Your task to perform on an android device: Do I have any events this weekend? Image 0: 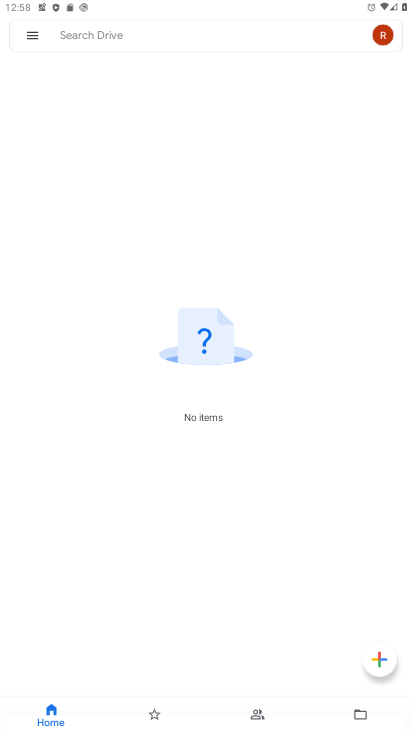
Step 0: press home button
Your task to perform on an android device: Do I have any events this weekend? Image 1: 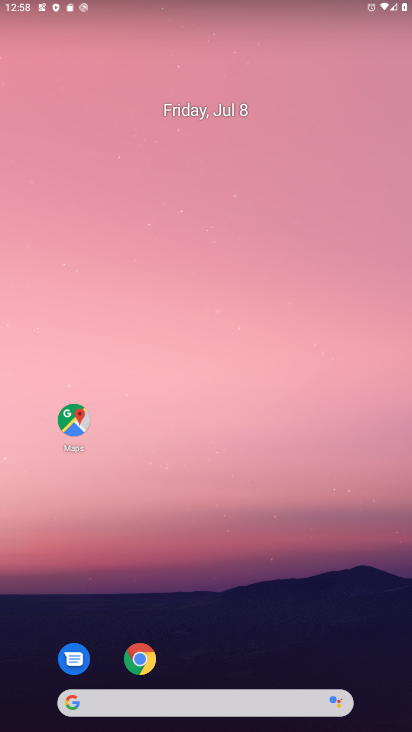
Step 1: drag from (217, 574) to (94, 120)
Your task to perform on an android device: Do I have any events this weekend? Image 2: 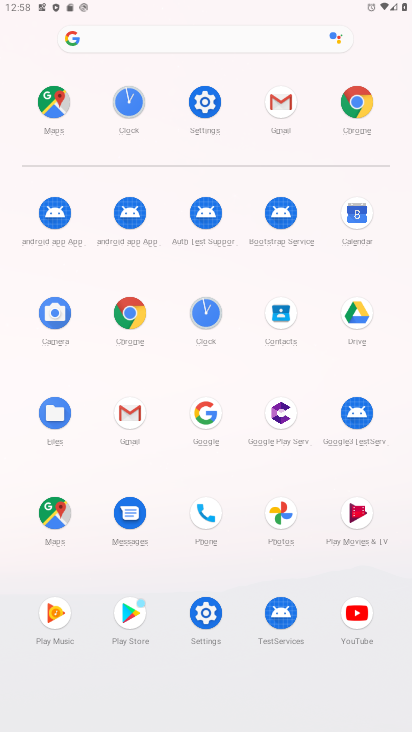
Step 2: click (355, 217)
Your task to perform on an android device: Do I have any events this weekend? Image 3: 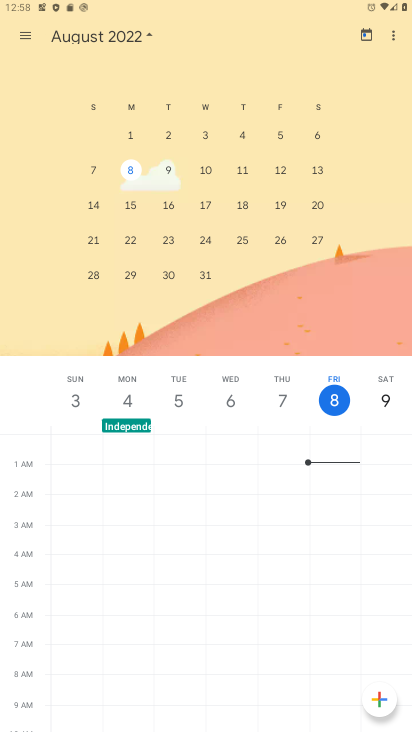
Step 3: drag from (90, 199) to (410, 271)
Your task to perform on an android device: Do I have any events this weekend? Image 4: 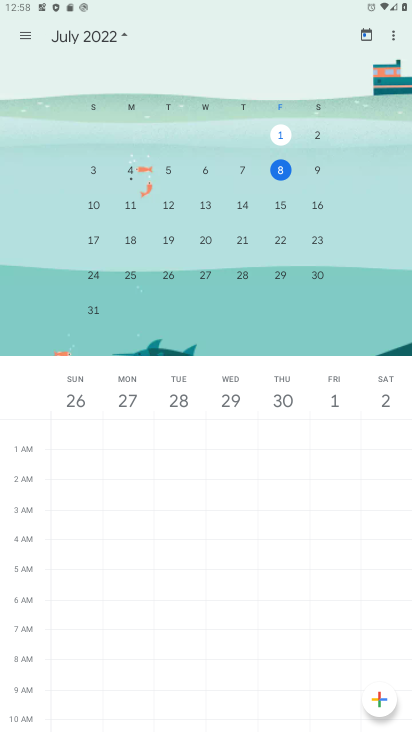
Step 4: click (246, 160)
Your task to perform on an android device: Do I have any events this weekend? Image 5: 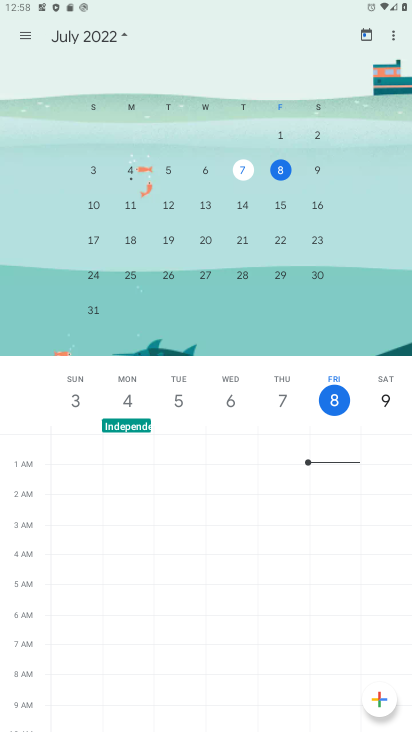
Step 5: task complete